Your task to perform on an android device: turn on data saver in the chrome app Image 0: 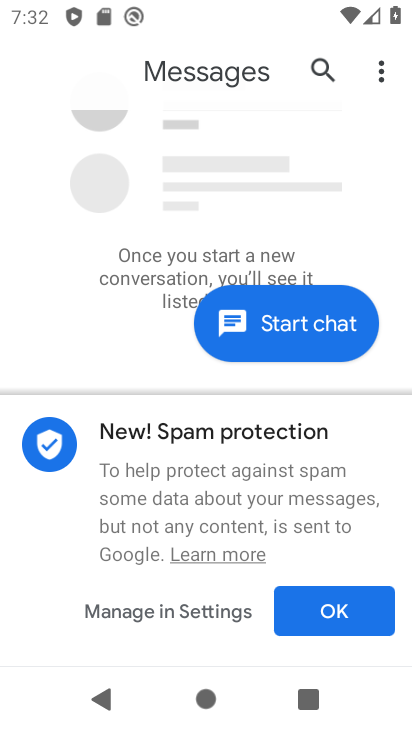
Step 0: press home button
Your task to perform on an android device: turn on data saver in the chrome app Image 1: 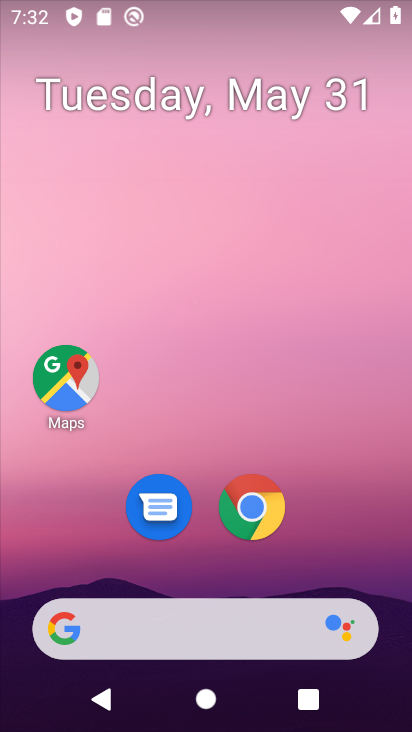
Step 1: click (263, 500)
Your task to perform on an android device: turn on data saver in the chrome app Image 2: 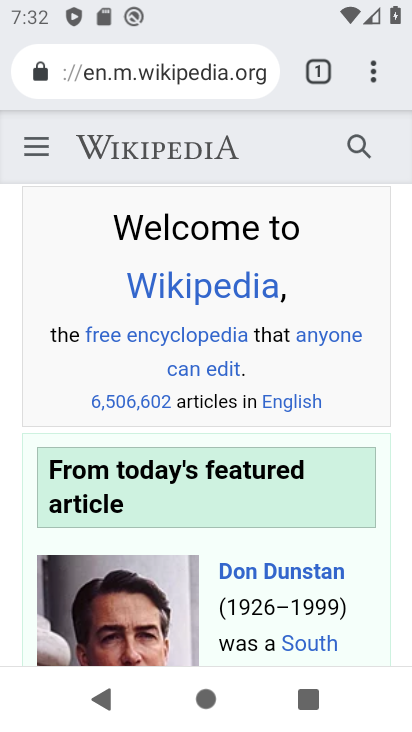
Step 2: drag from (371, 69) to (195, 506)
Your task to perform on an android device: turn on data saver in the chrome app Image 3: 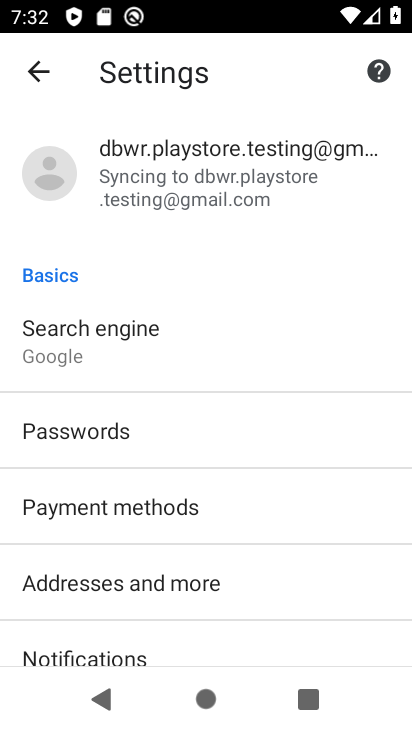
Step 3: drag from (165, 598) to (249, 130)
Your task to perform on an android device: turn on data saver in the chrome app Image 4: 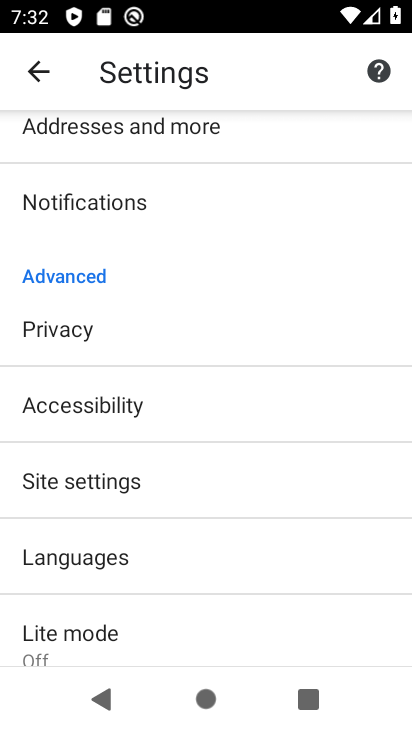
Step 4: drag from (142, 569) to (202, 394)
Your task to perform on an android device: turn on data saver in the chrome app Image 5: 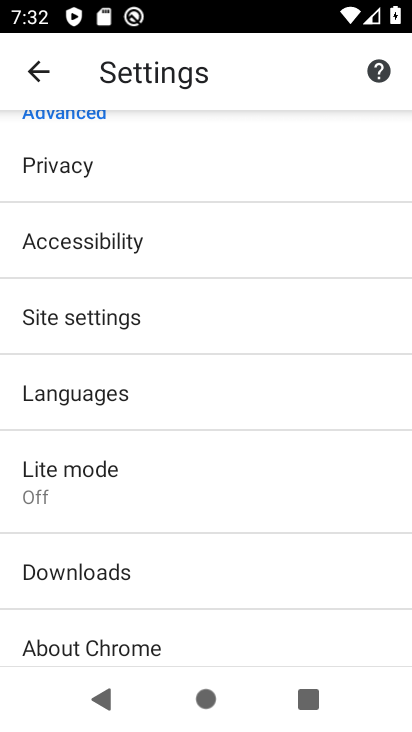
Step 5: click (129, 325)
Your task to perform on an android device: turn on data saver in the chrome app Image 6: 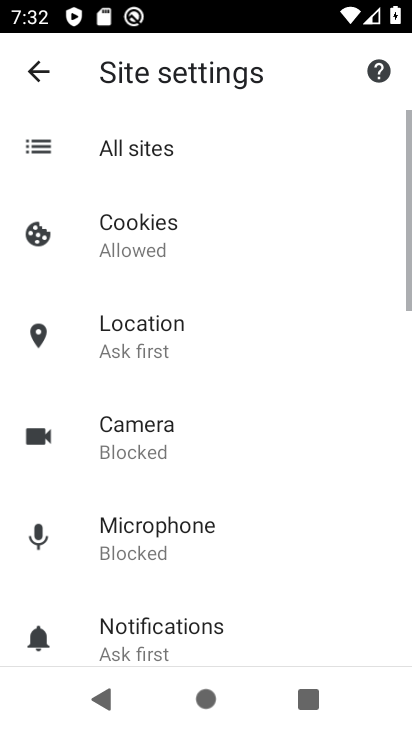
Step 6: click (33, 81)
Your task to perform on an android device: turn on data saver in the chrome app Image 7: 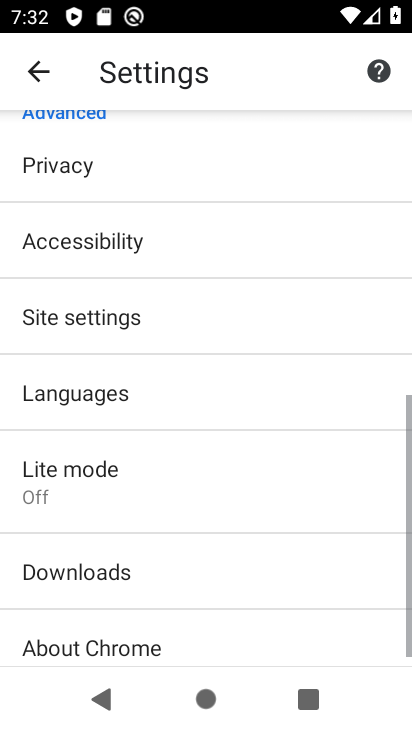
Step 7: drag from (157, 567) to (210, 355)
Your task to perform on an android device: turn on data saver in the chrome app Image 8: 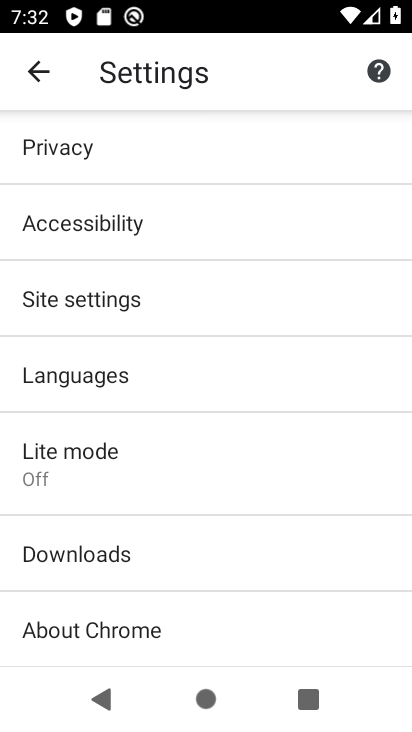
Step 8: click (135, 450)
Your task to perform on an android device: turn on data saver in the chrome app Image 9: 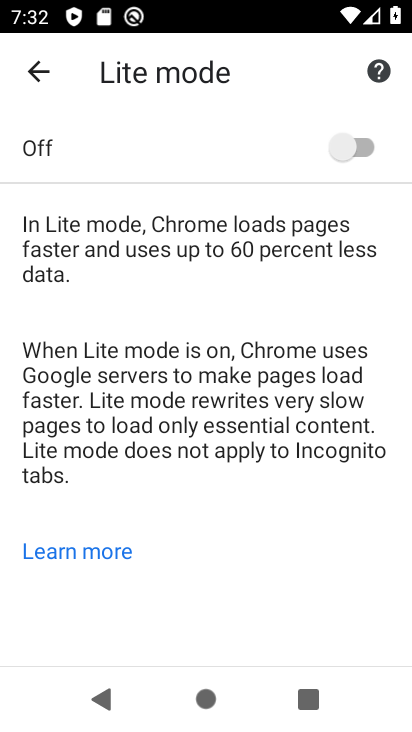
Step 9: click (359, 146)
Your task to perform on an android device: turn on data saver in the chrome app Image 10: 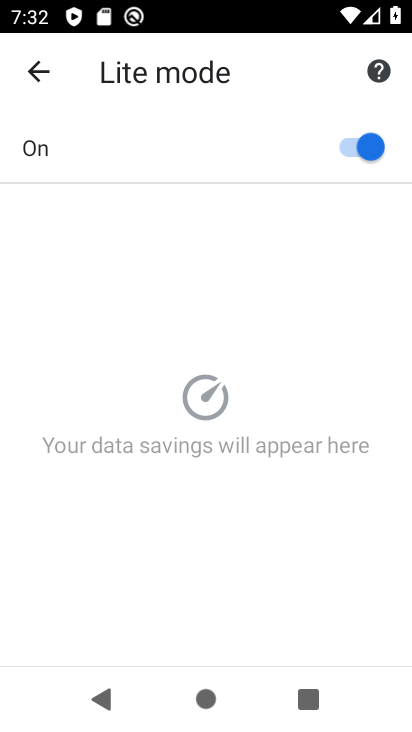
Step 10: task complete